Your task to perform on an android device: turn on priority inbox in the gmail app Image 0: 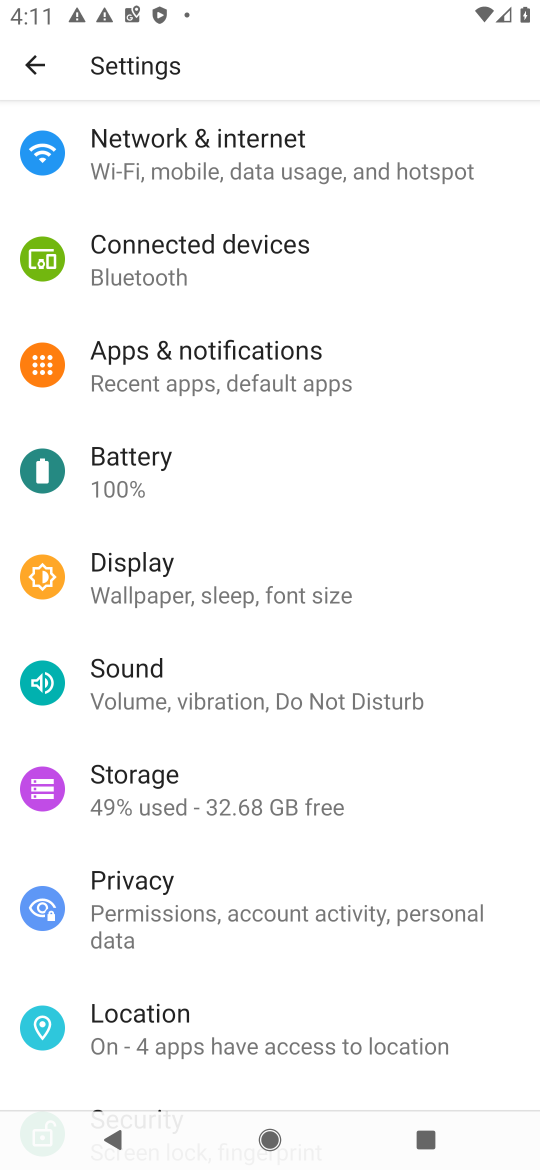
Step 0: press home button
Your task to perform on an android device: turn on priority inbox in the gmail app Image 1: 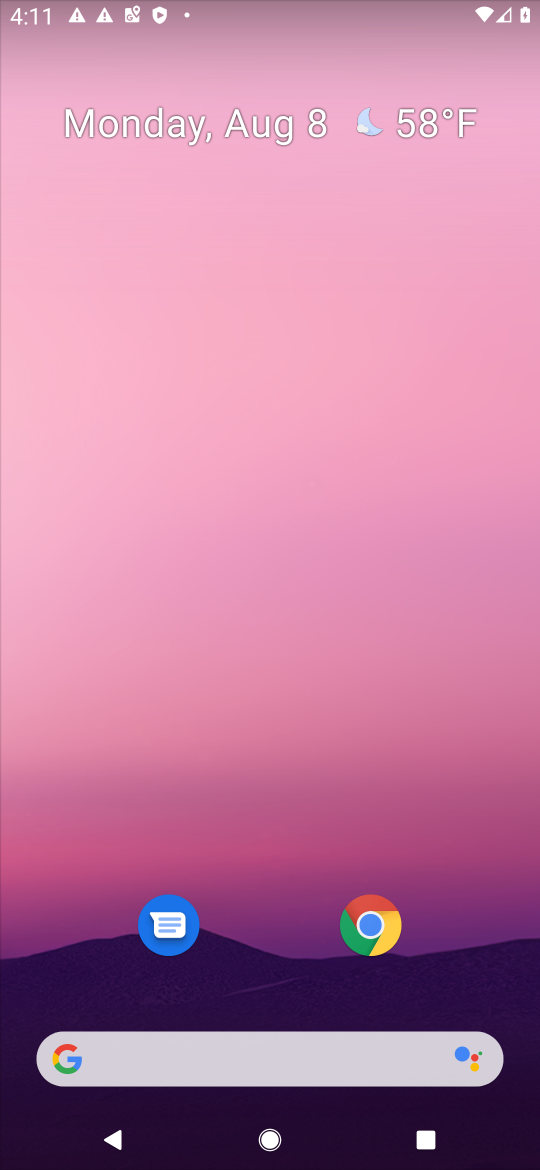
Step 1: drag from (283, 998) to (283, 614)
Your task to perform on an android device: turn on priority inbox in the gmail app Image 2: 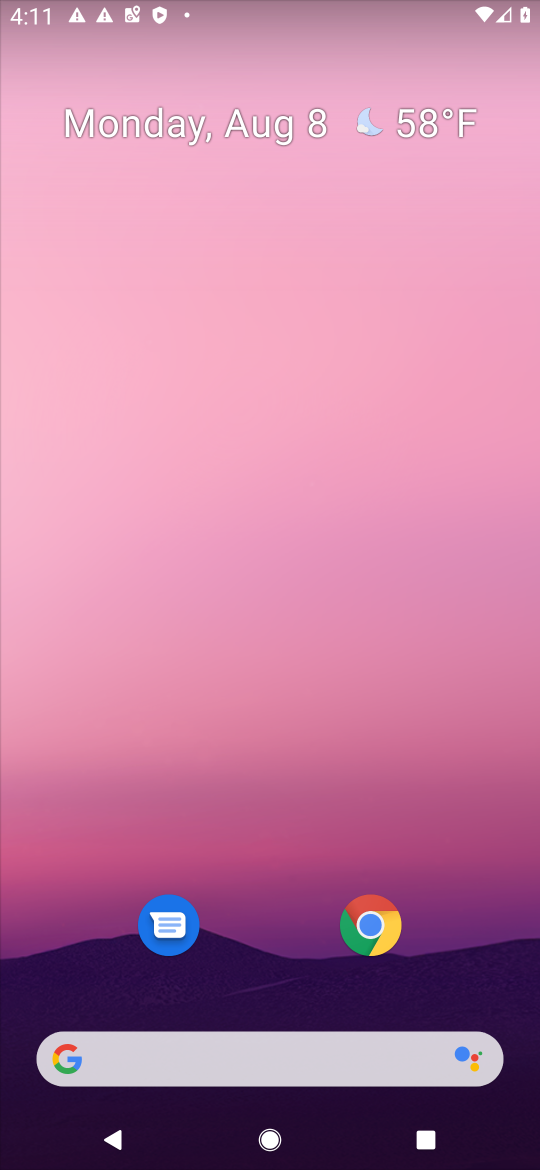
Step 2: drag from (274, 1008) to (256, 158)
Your task to perform on an android device: turn on priority inbox in the gmail app Image 3: 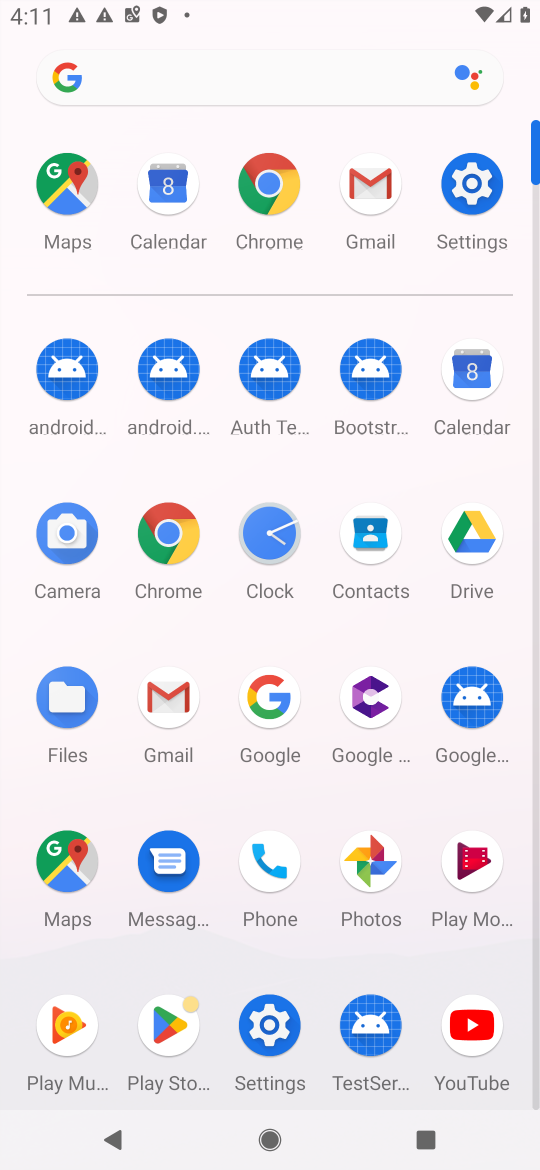
Step 3: click (368, 177)
Your task to perform on an android device: turn on priority inbox in the gmail app Image 4: 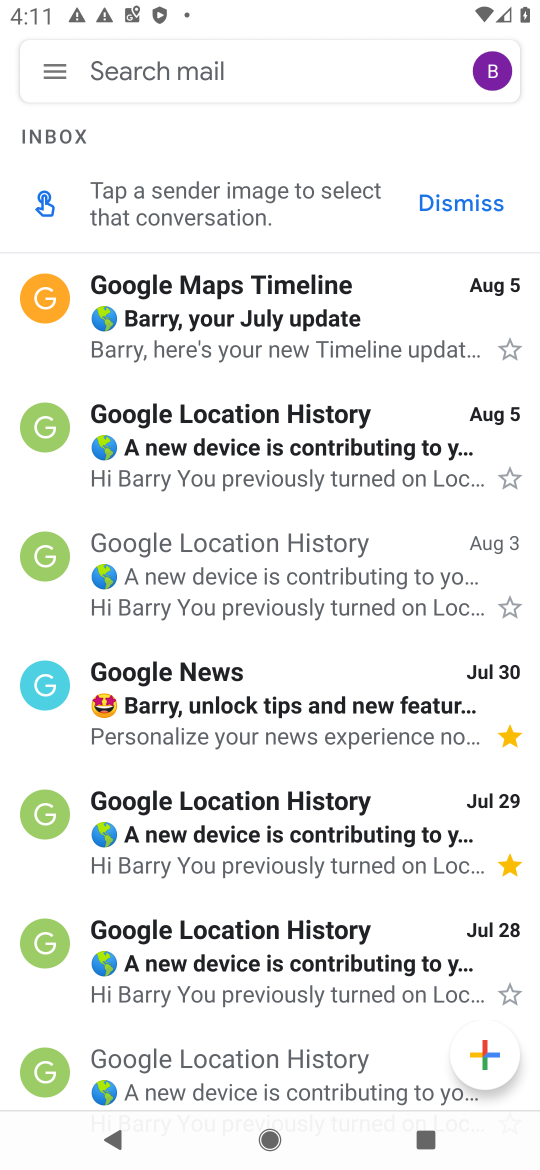
Step 4: click (64, 76)
Your task to perform on an android device: turn on priority inbox in the gmail app Image 5: 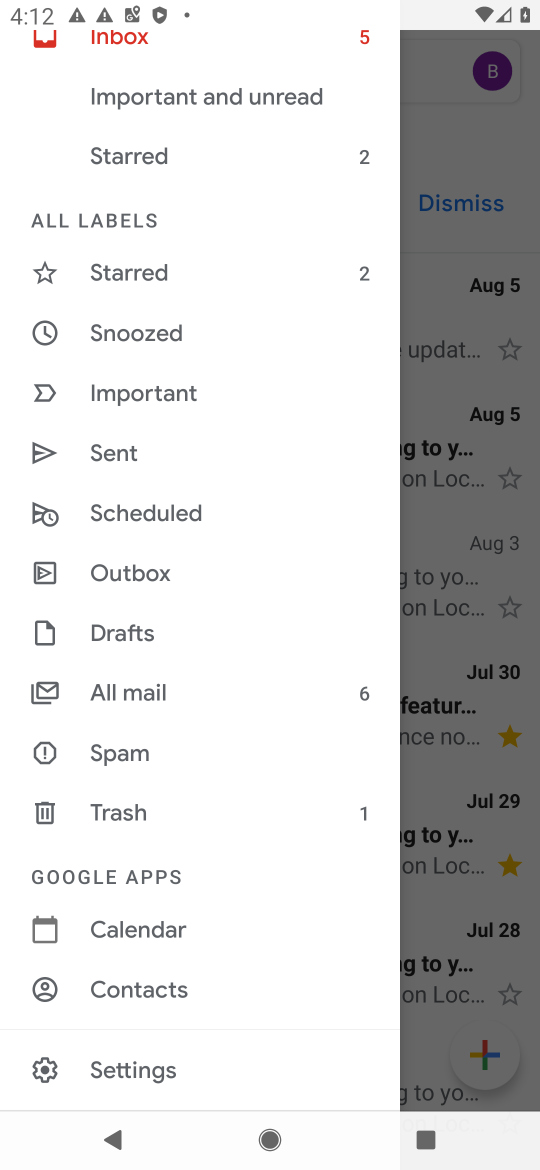
Step 5: click (157, 1064)
Your task to perform on an android device: turn on priority inbox in the gmail app Image 6: 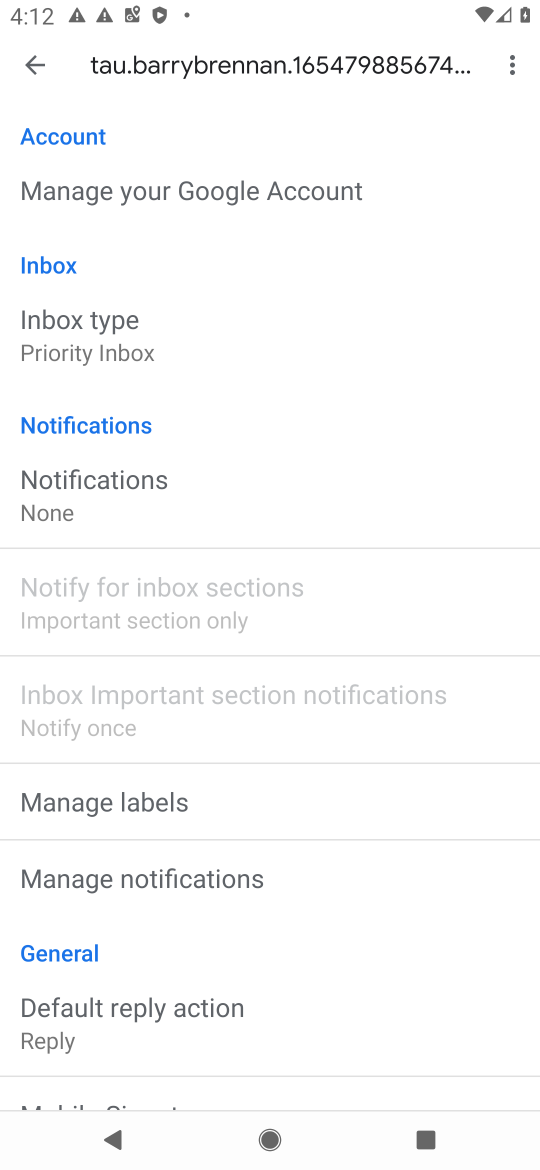
Step 6: task complete